Your task to perform on an android device: open a new tab in the chrome app Image 0: 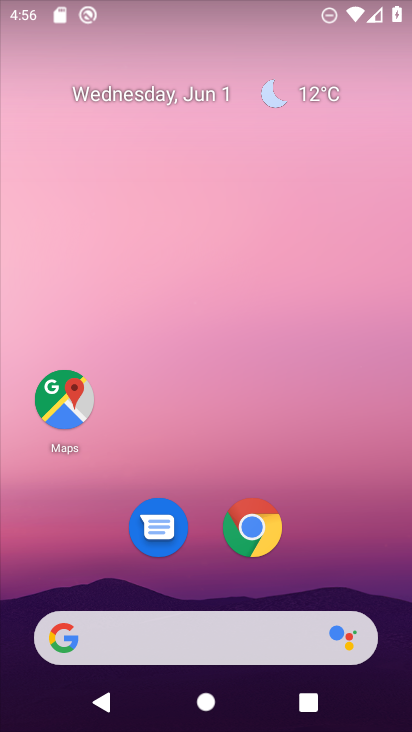
Step 0: click (247, 545)
Your task to perform on an android device: open a new tab in the chrome app Image 1: 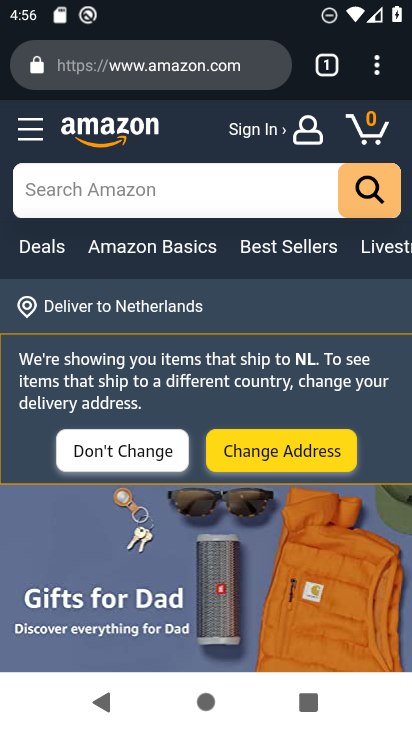
Step 1: click (385, 58)
Your task to perform on an android device: open a new tab in the chrome app Image 2: 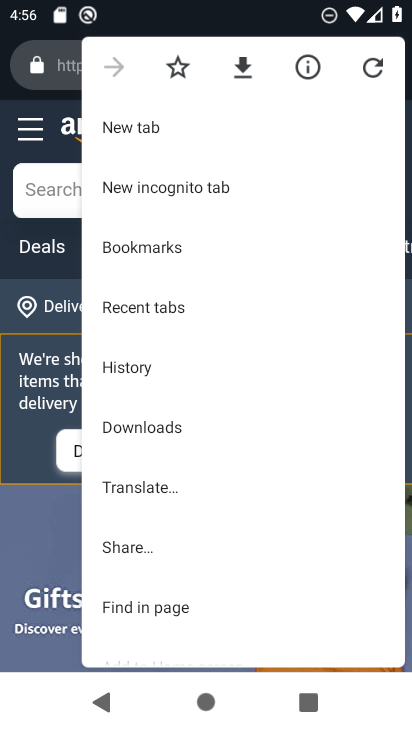
Step 2: click (108, 133)
Your task to perform on an android device: open a new tab in the chrome app Image 3: 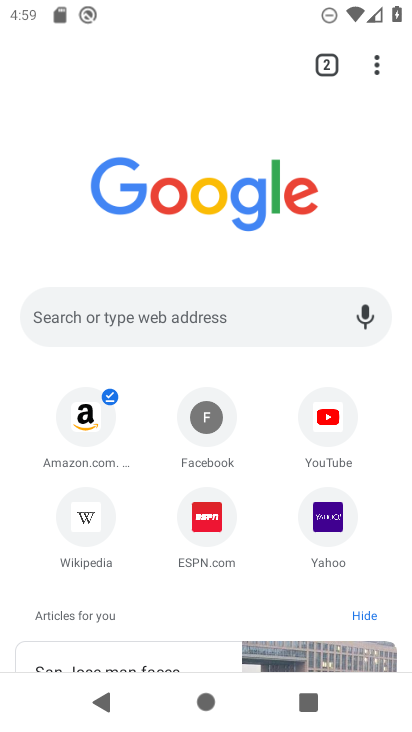
Step 3: task complete